Your task to perform on an android device: turn on location history Image 0: 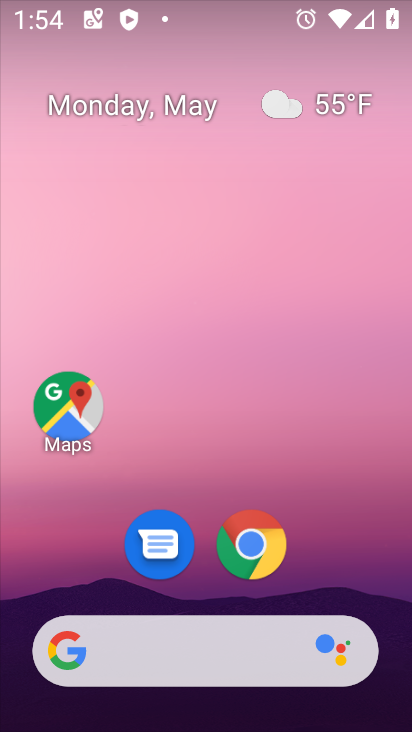
Step 0: drag from (405, 638) to (308, 469)
Your task to perform on an android device: turn on location history Image 1: 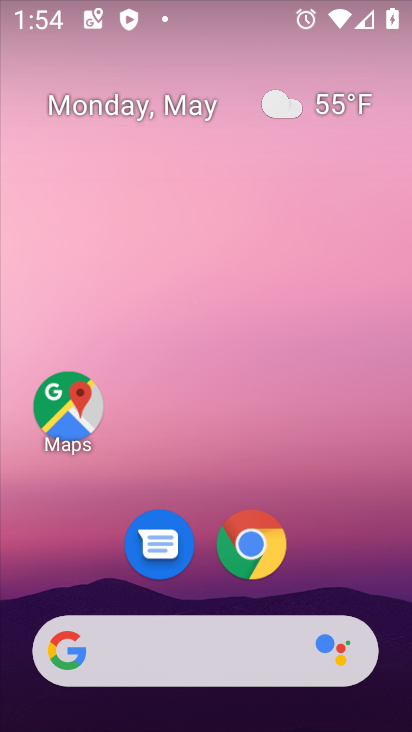
Step 1: click (70, 409)
Your task to perform on an android device: turn on location history Image 2: 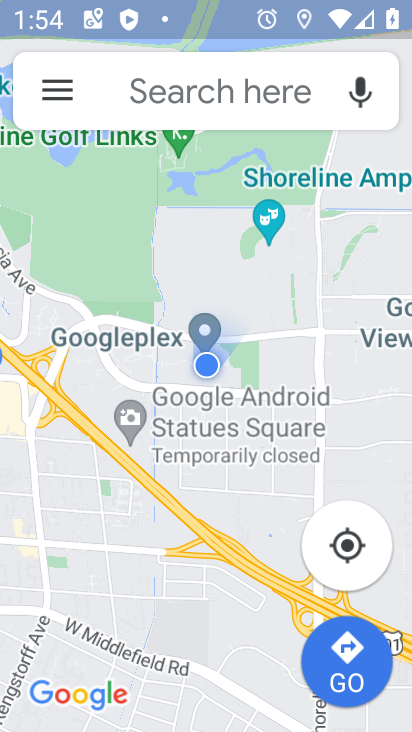
Step 2: click (56, 94)
Your task to perform on an android device: turn on location history Image 3: 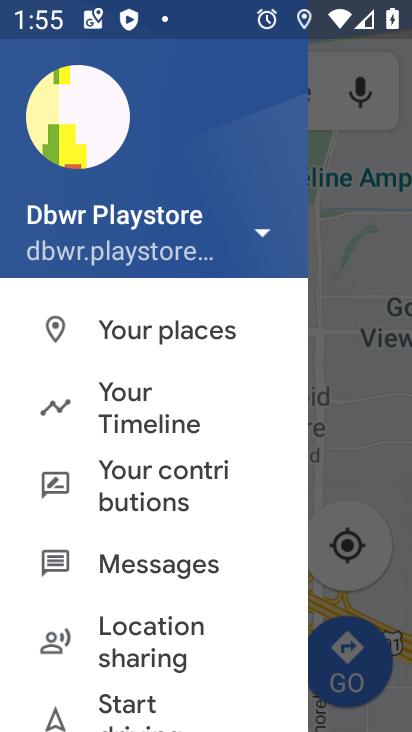
Step 3: drag from (205, 671) to (279, 242)
Your task to perform on an android device: turn on location history Image 4: 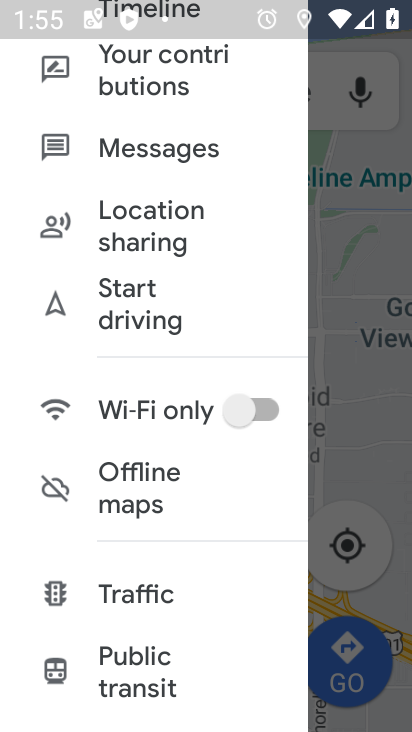
Step 4: drag from (218, 668) to (248, 176)
Your task to perform on an android device: turn on location history Image 5: 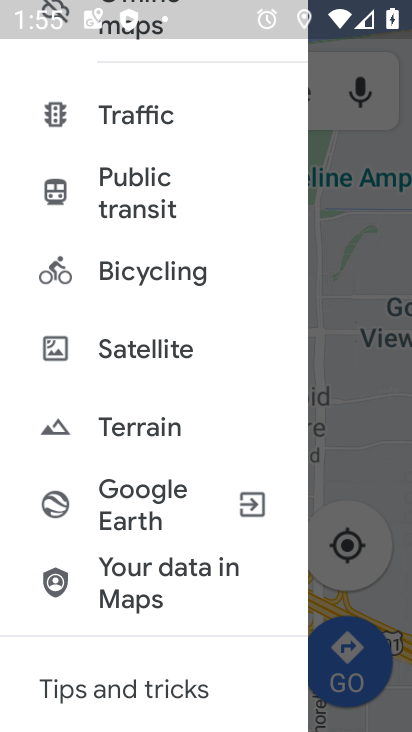
Step 5: drag from (218, 672) to (247, 117)
Your task to perform on an android device: turn on location history Image 6: 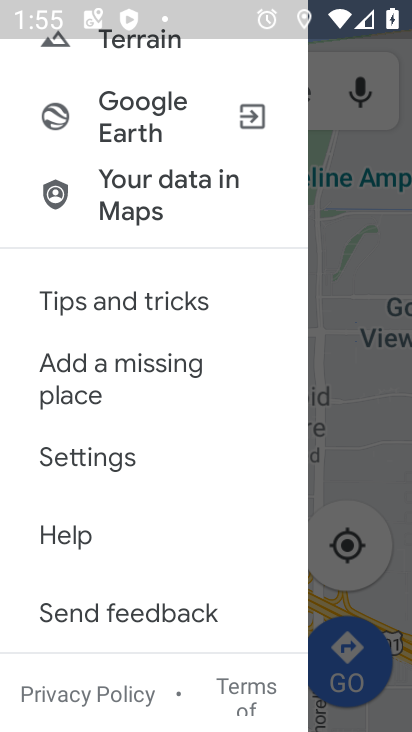
Step 6: click (84, 463)
Your task to perform on an android device: turn on location history Image 7: 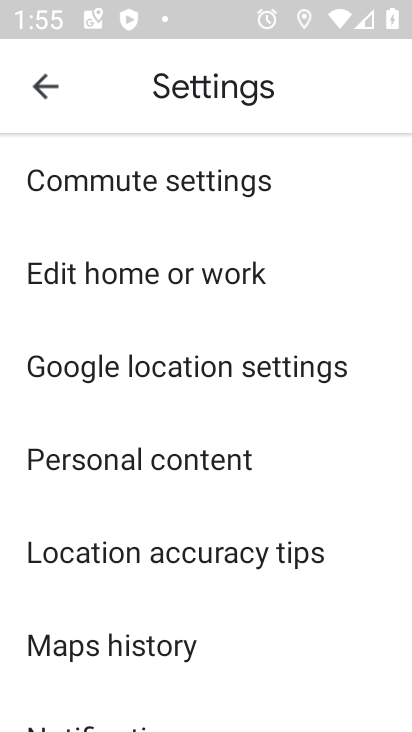
Step 7: click (93, 450)
Your task to perform on an android device: turn on location history Image 8: 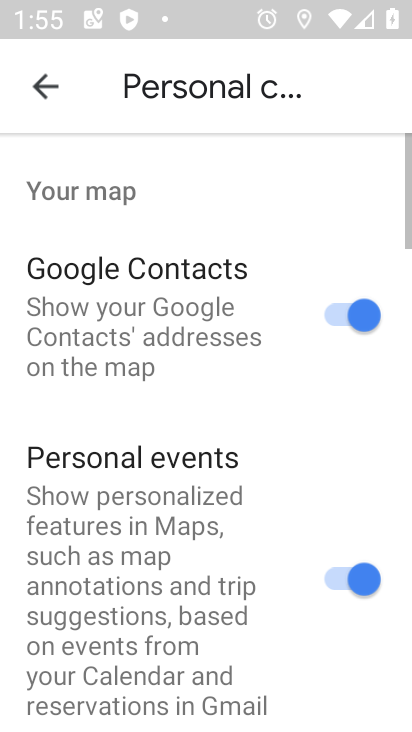
Step 8: task complete